Your task to perform on an android device: Open display settings Image 0: 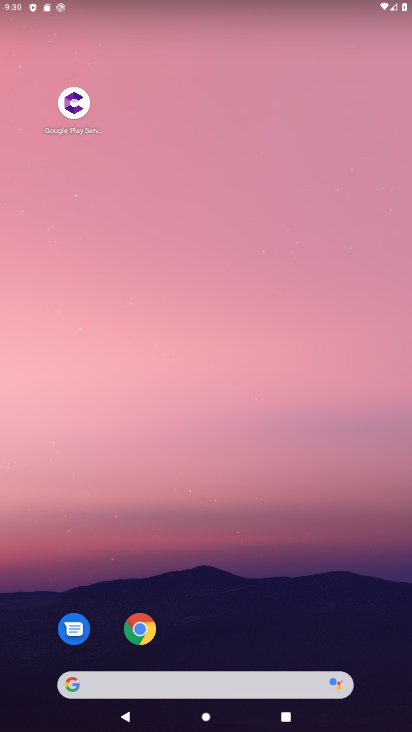
Step 0: drag from (295, 635) to (240, 174)
Your task to perform on an android device: Open display settings Image 1: 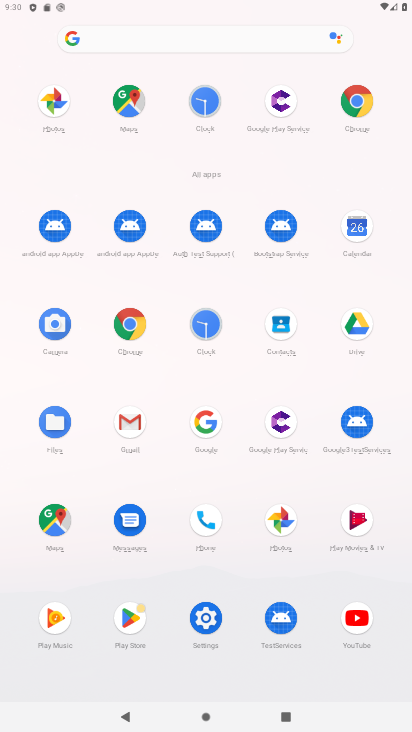
Step 1: click (207, 642)
Your task to perform on an android device: Open display settings Image 2: 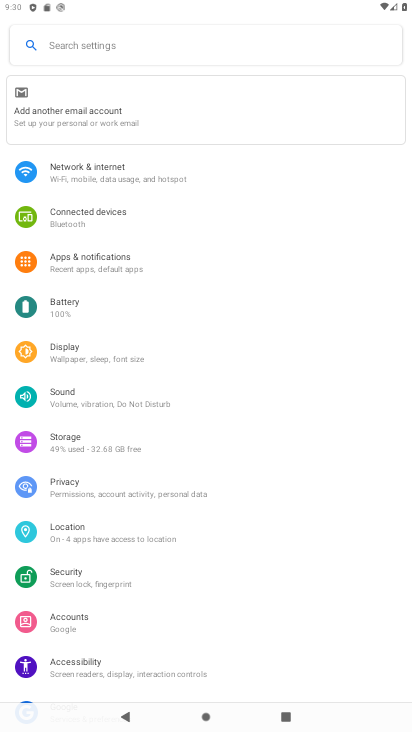
Step 2: click (97, 343)
Your task to perform on an android device: Open display settings Image 3: 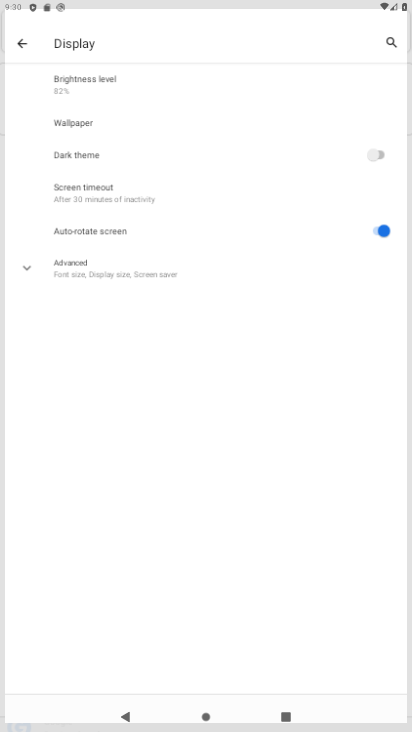
Step 3: task complete